Your task to perform on an android device: What's on my calendar today? Image 0: 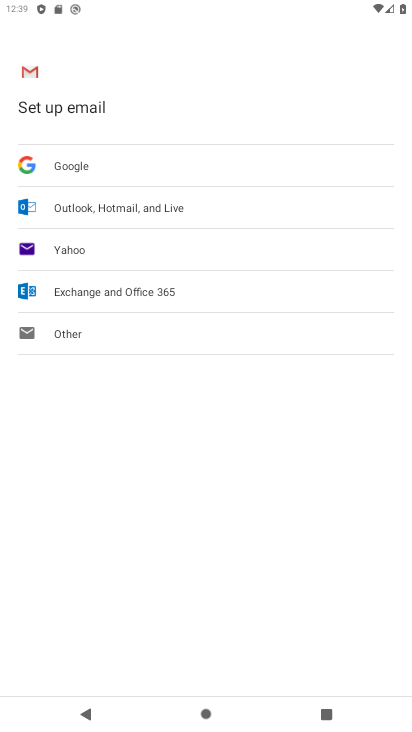
Step 0: press home button
Your task to perform on an android device: What's on my calendar today? Image 1: 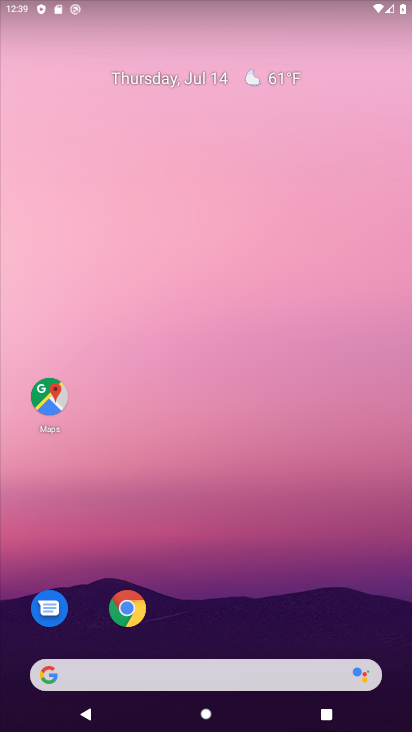
Step 1: drag from (343, 596) to (320, 119)
Your task to perform on an android device: What's on my calendar today? Image 2: 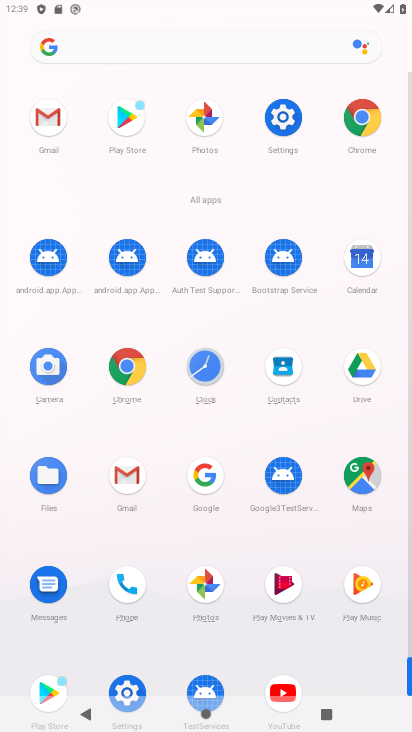
Step 2: click (363, 263)
Your task to perform on an android device: What's on my calendar today? Image 3: 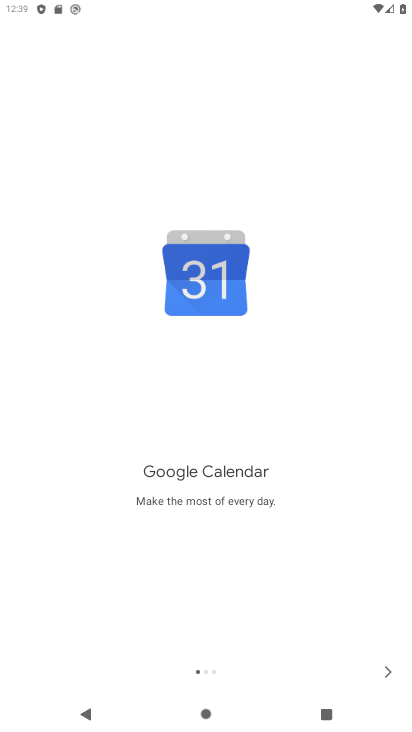
Step 3: click (381, 667)
Your task to perform on an android device: What's on my calendar today? Image 4: 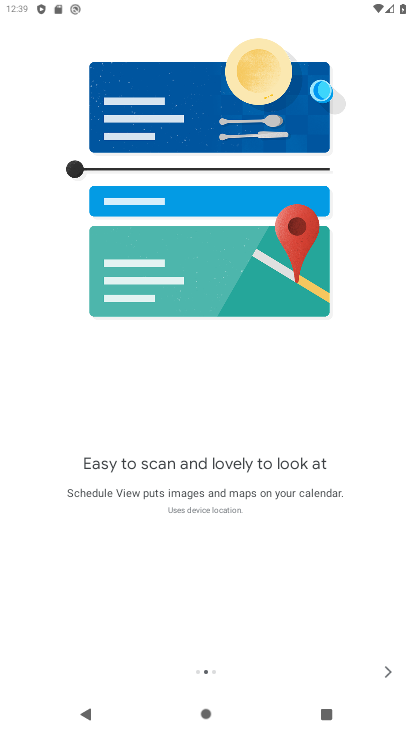
Step 4: click (381, 667)
Your task to perform on an android device: What's on my calendar today? Image 5: 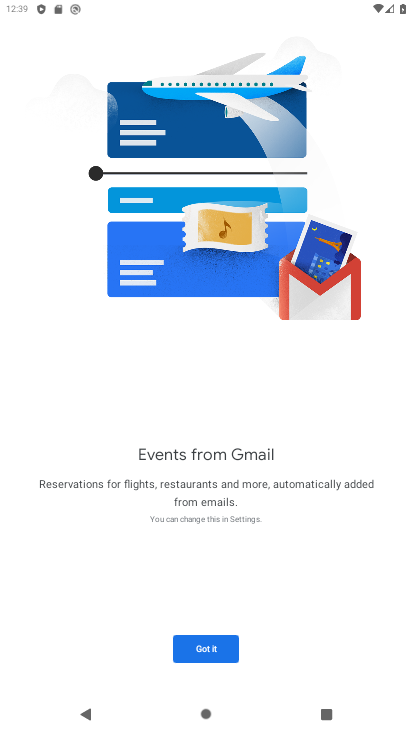
Step 5: click (217, 643)
Your task to perform on an android device: What's on my calendar today? Image 6: 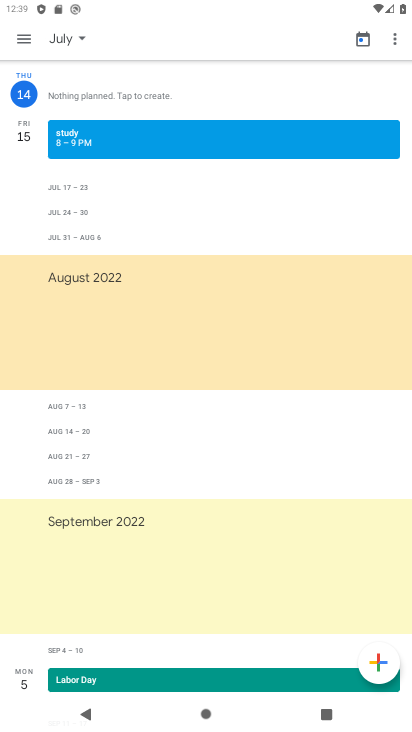
Step 6: click (82, 35)
Your task to perform on an android device: What's on my calendar today? Image 7: 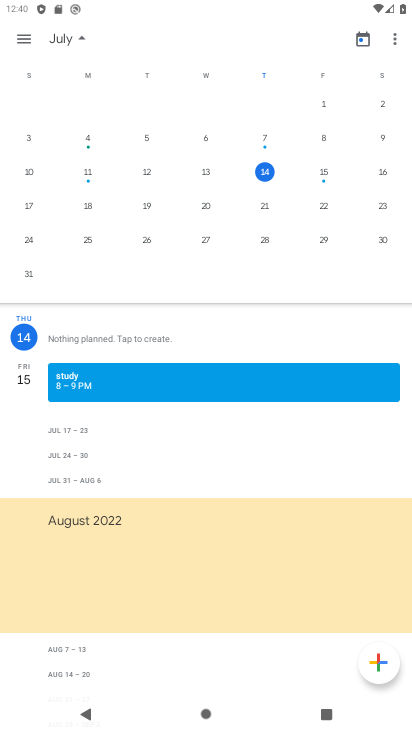
Step 7: task complete